Your task to perform on an android device: Show me popular games on the Play Store Image 0: 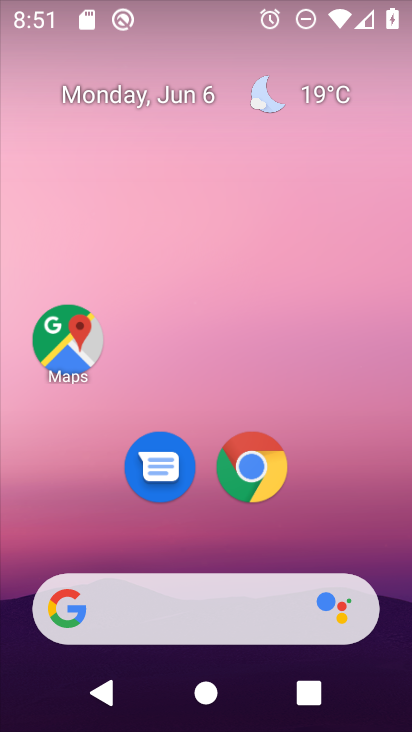
Step 0: drag from (375, 547) to (376, 155)
Your task to perform on an android device: Show me popular games on the Play Store Image 1: 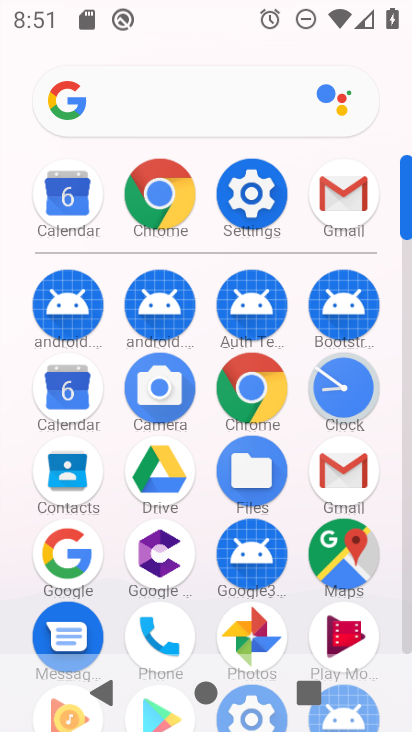
Step 1: drag from (385, 606) to (383, 356)
Your task to perform on an android device: Show me popular games on the Play Store Image 2: 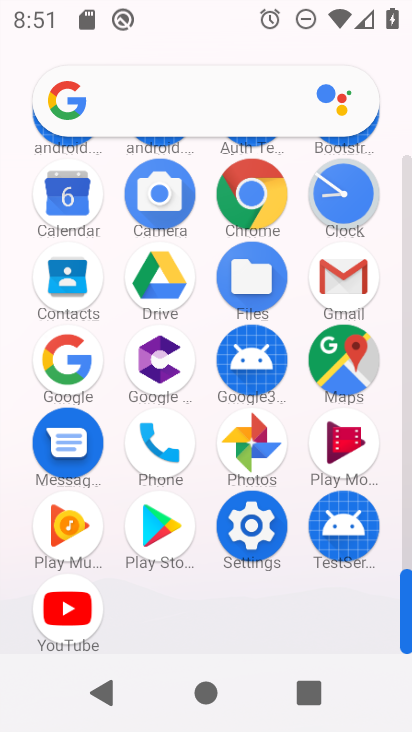
Step 2: click (162, 528)
Your task to perform on an android device: Show me popular games on the Play Store Image 3: 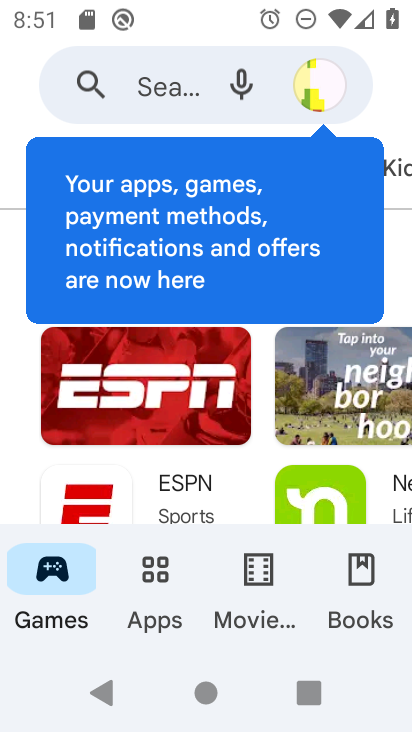
Step 3: task complete